Your task to perform on an android device: Turn off the flashlight Image 0: 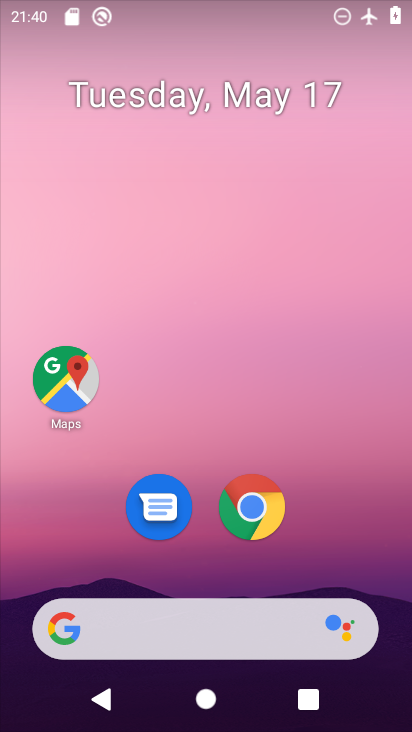
Step 0: drag from (187, 6) to (224, 671)
Your task to perform on an android device: Turn off the flashlight Image 1: 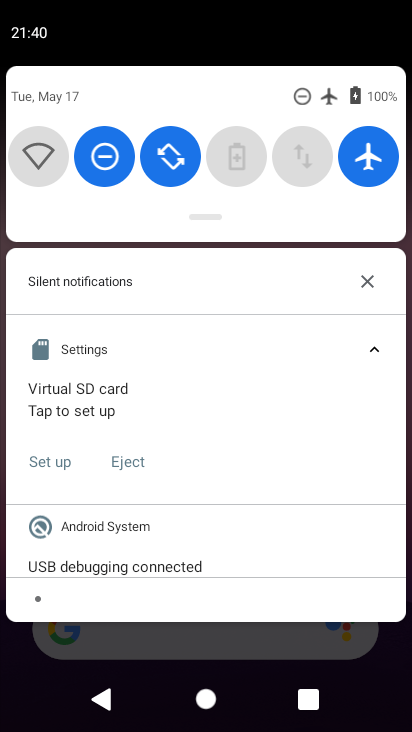
Step 1: task complete